Your task to perform on an android device: turn smart compose on in the gmail app Image 0: 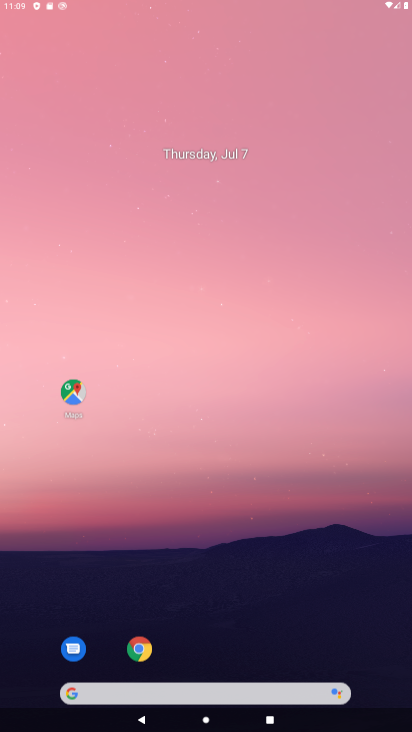
Step 0: click (355, 116)
Your task to perform on an android device: turn smart compose on in the gmail app Image 1: 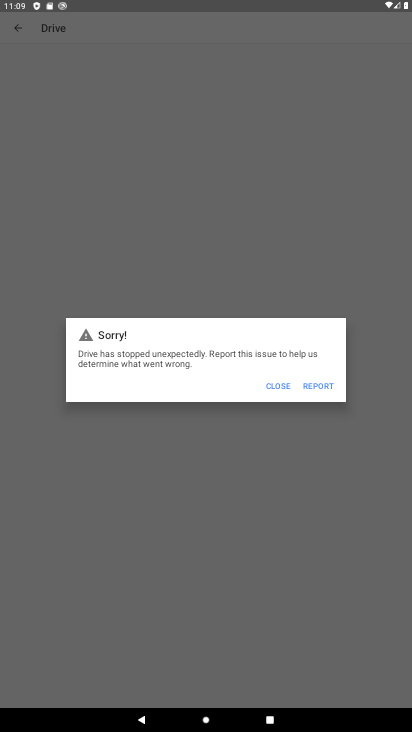
Step 1: press home button
Your task to perform on an android device: turn smart compose on in the gmail app Image 2: 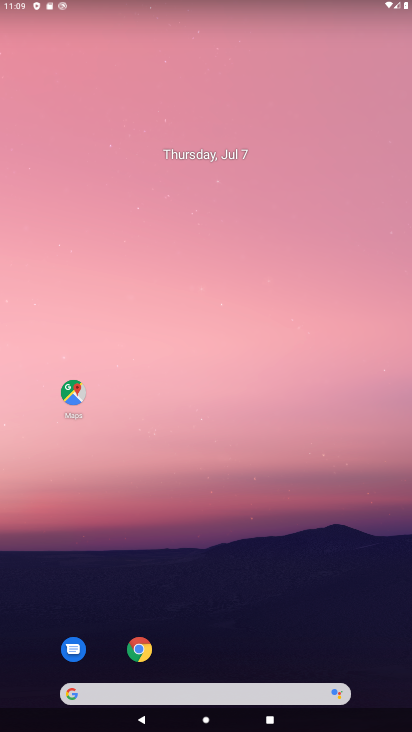
Step 2: drag from (217, 664) to (322, 135)
Your task to perform on an android device: turn smart compose on in the gmail app Image 3: 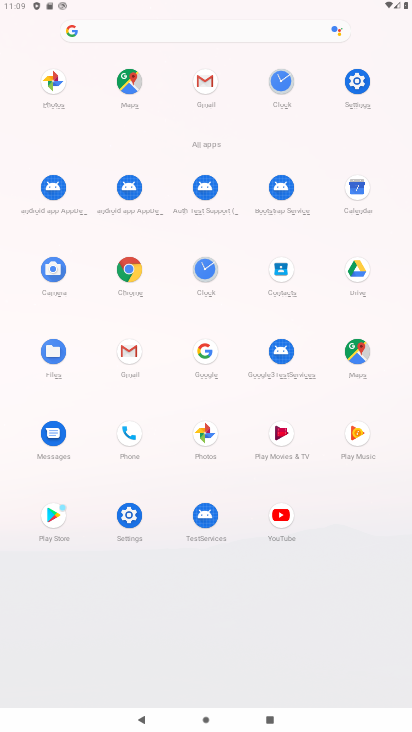
Step 3: click (143, 355)
Your task to perform on an android device: turn smart compose on in the gmail app Image 4: 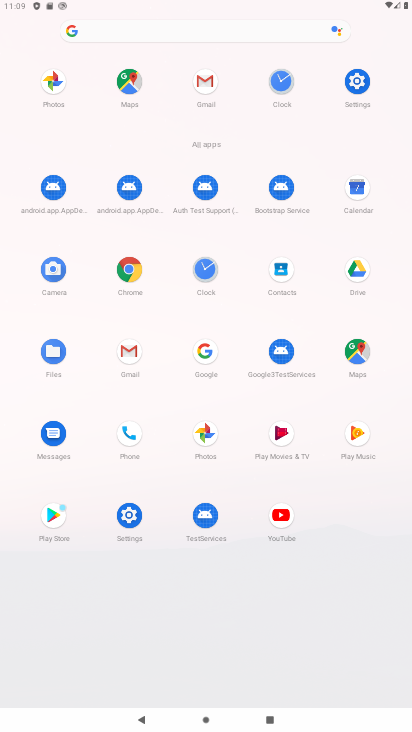
Step 4: click (133, 366)
Your task to perform on an android device: turn smart compose on in the gmail app Image 5: 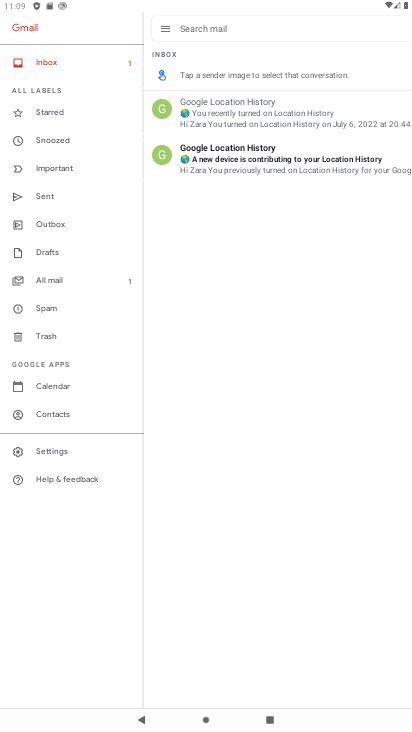
Step 5: click (105, 448)
Your task to perform on an android device: turn smart compose on in the gmail app Image 6: 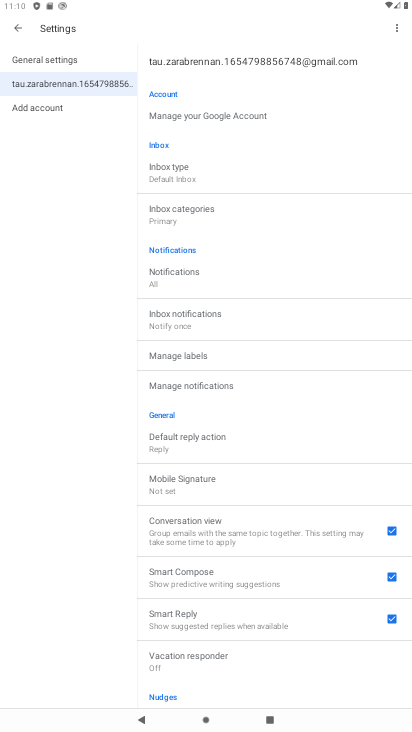
Step 6: task complete